Your task to perform on an android device: Search for acer predator on bestbuy, select the first entry, and add it to the cart. Image 0: 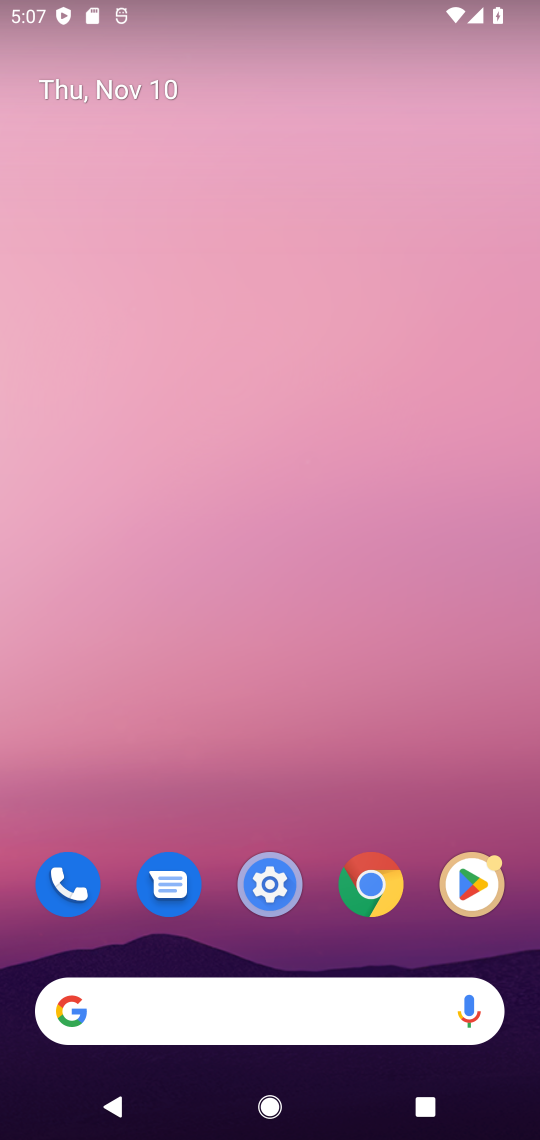
Step 0: drag from (266, 937) to (79, 108)
Your task to perform on an android device: Search for acer predator on bestbuy, select the first entry, and add it to the cart. Image 1: 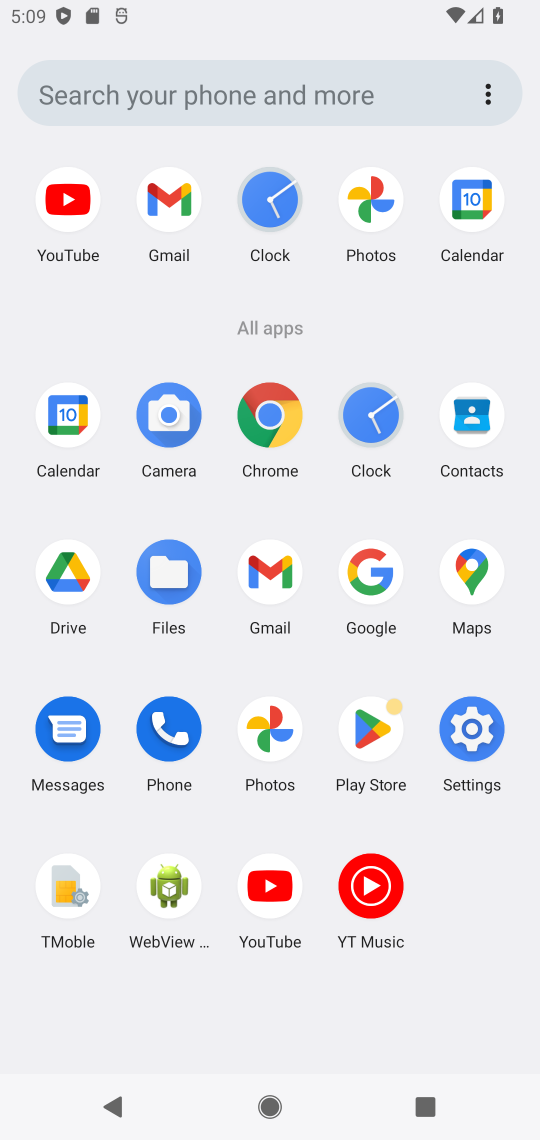
Step 1: click (292, 412)
Your task to perform on an android device: Search for acer predator on bestbuy, select the first entry, and add it to the cart. Image 2: 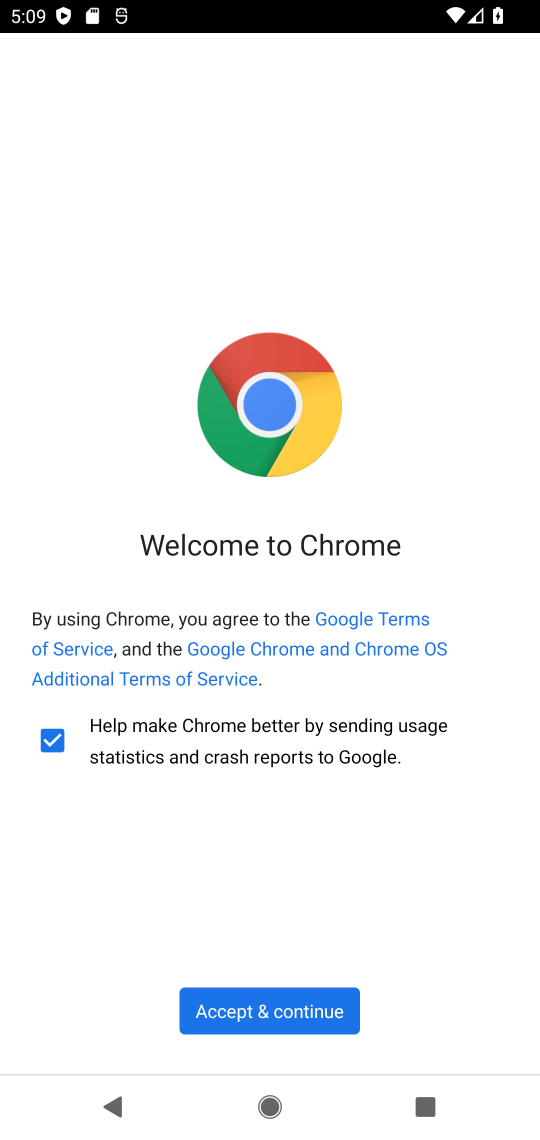
Step 2: click (262, 1003)
Your task to perform on an android device: Search for acer predator on bestbuy, select the first entry, and add it to the cart. Image 3: 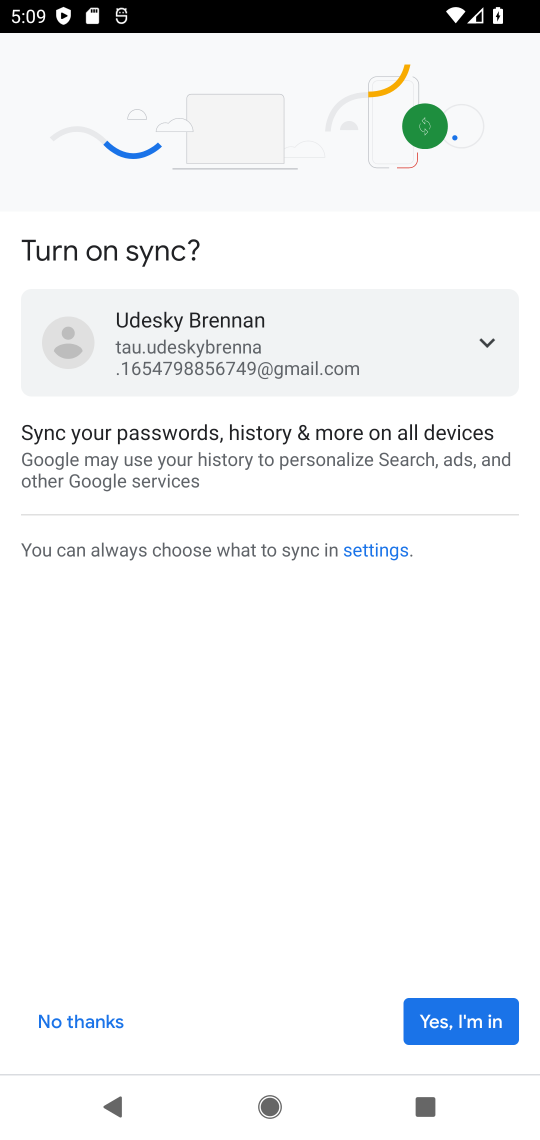
Step 3: click (469, 1029)
Your task to perform on an android device: Search for acer predator on bestbuy, select the first entry, and add it to the cart. Image 4: 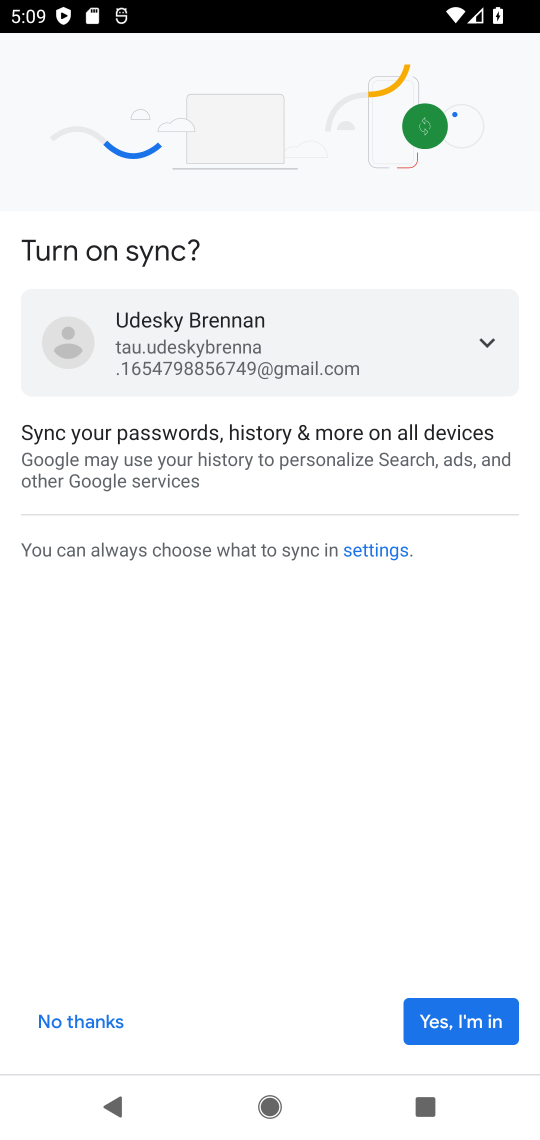
Step 4: click (469, 1027)
Your task to perform on an android device: Search for acer predator on bestbuy, select the first entry, and add it to the cart. Image 5: 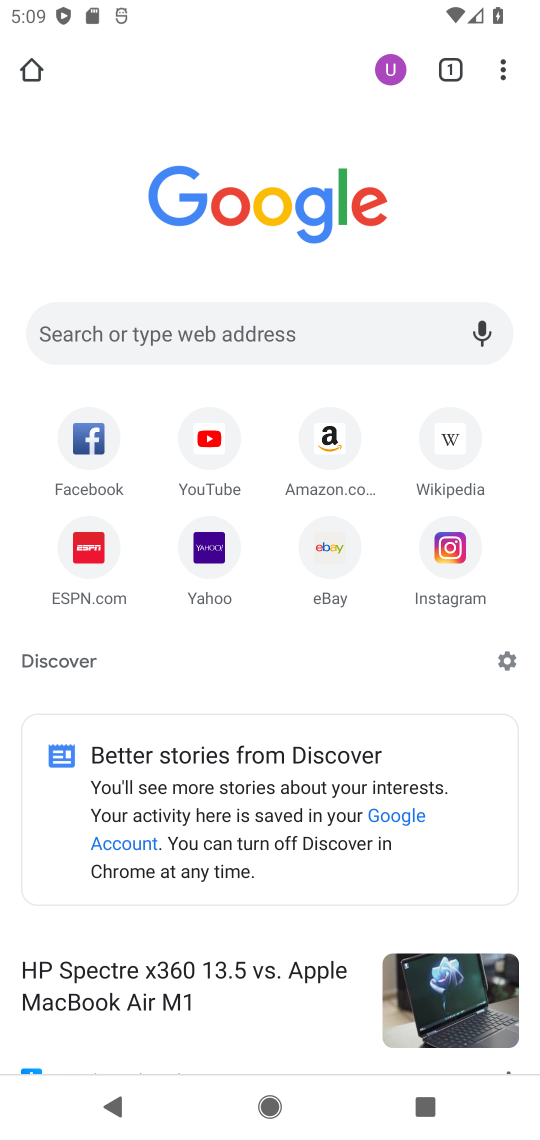
Step 5: click (217, 338)
Your task to perform on an android device: Search for acer predator on bestbuy, select the first entry, and add it to the cart. Image 6: 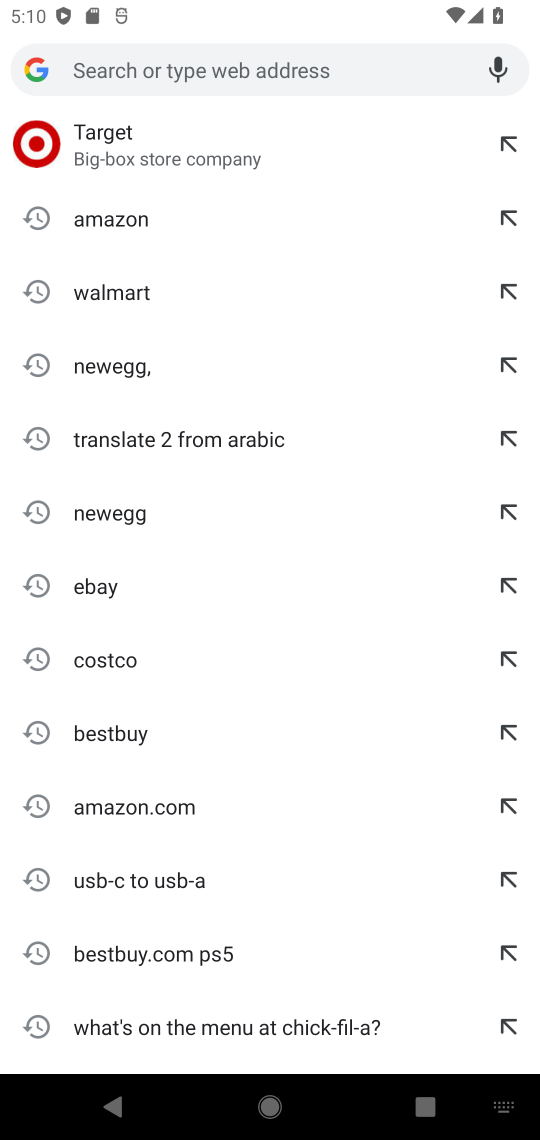
Step 6: type "bestbuy"
Your task to perform on an android device: Search for acer predator on bestbuy, select the first entry, and add it to the cart. Image 7: 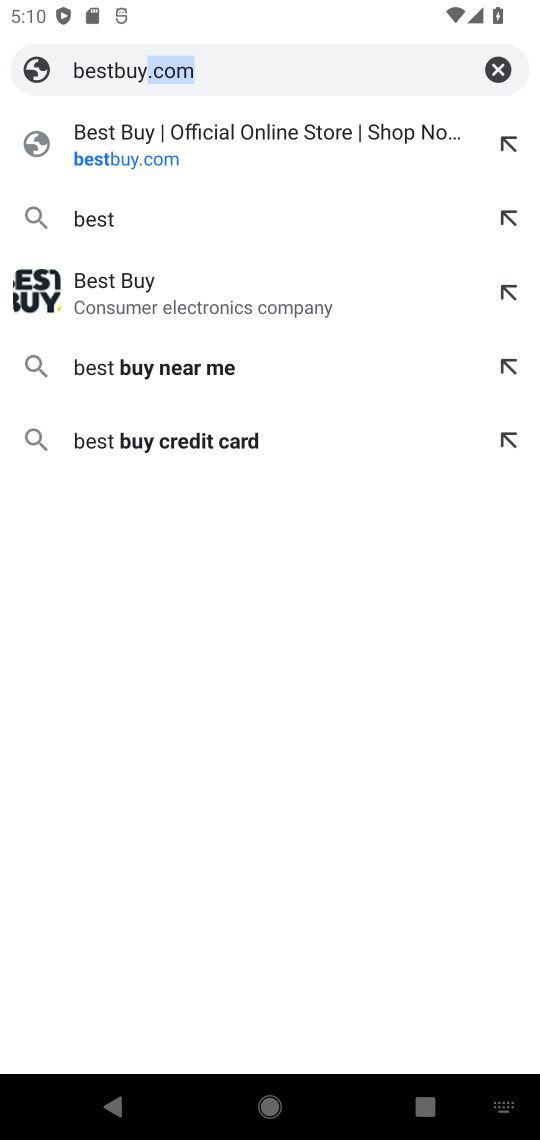
Step 7: press enter
Your task to perform on an android device: Search for acer predator on bestbuy, select the first entry, and add it to the cart. Image 8: 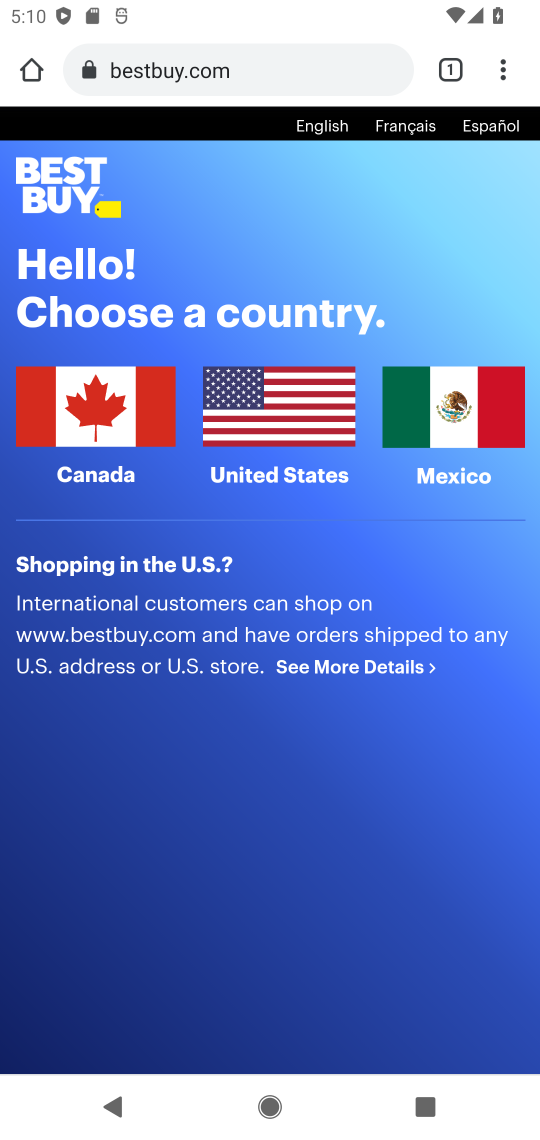
Step 8: click (94, 416)
Your task to perform on an android device: Search for acer predator on bestbuy, select the first entry, and add it to the cart. Image 9: 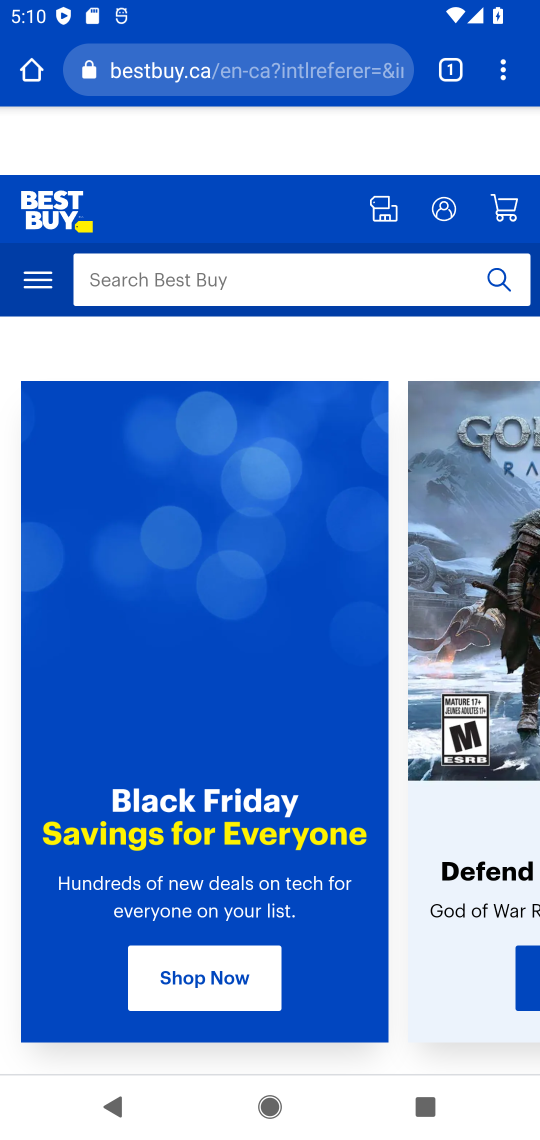
Step 9: click (156, 279)
Your task to perform on an android device: Search for acer predator on bestbuy, select the first entry, and add it to the cart. Image 10: 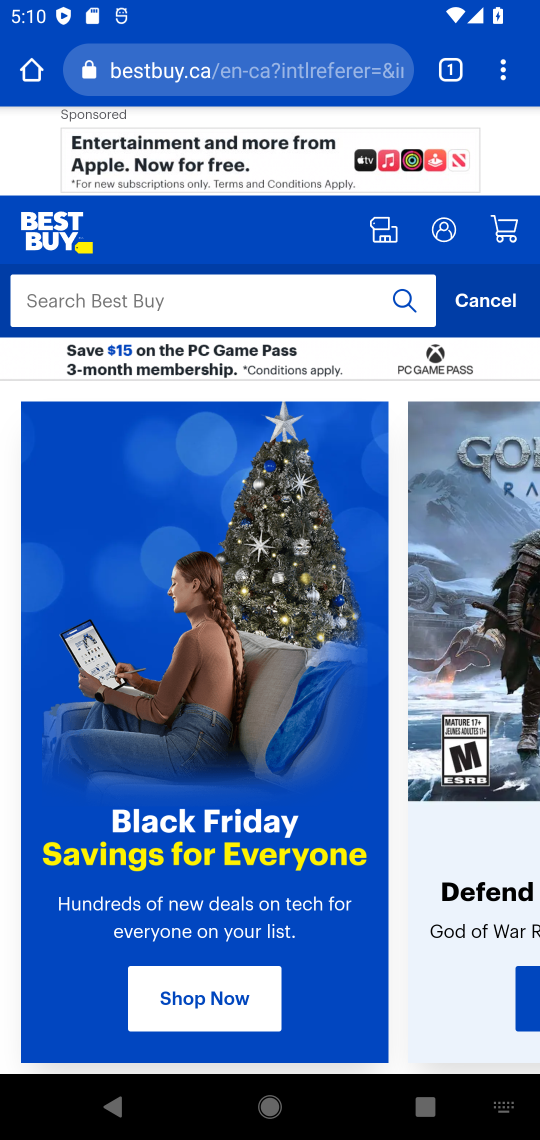
Step 10: type "acer predator"
Your task to perform on an android device: Search for acer predator on bestbuy, select the first entry, and add it to the cart. Image 11: 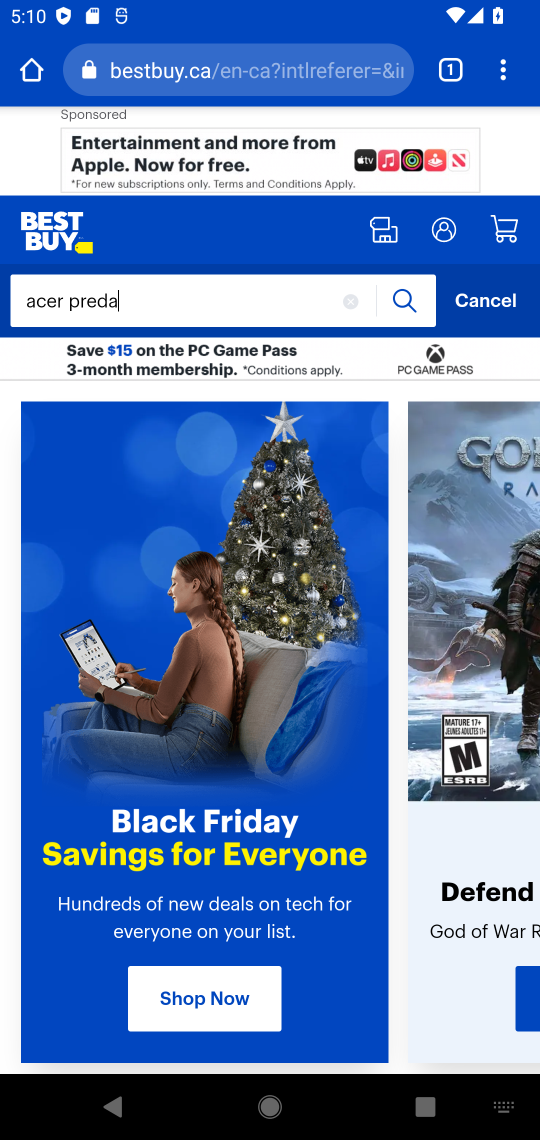
Step 11: press enter
Your task to perform on an android device: Search for acer predator on bestbuy, select the first entry, and add it to the cart. Image 12: 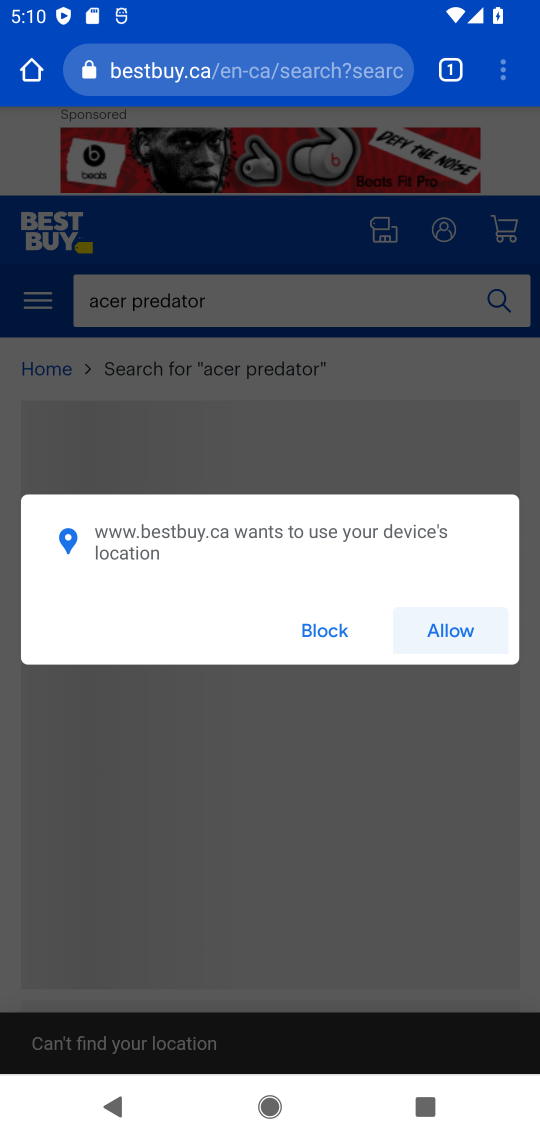
Step 12: click (469, 623)
Your task to perform on an android device: Search for acer predator on bestbuy, select the first entry, and add it to the cart. Image 13: 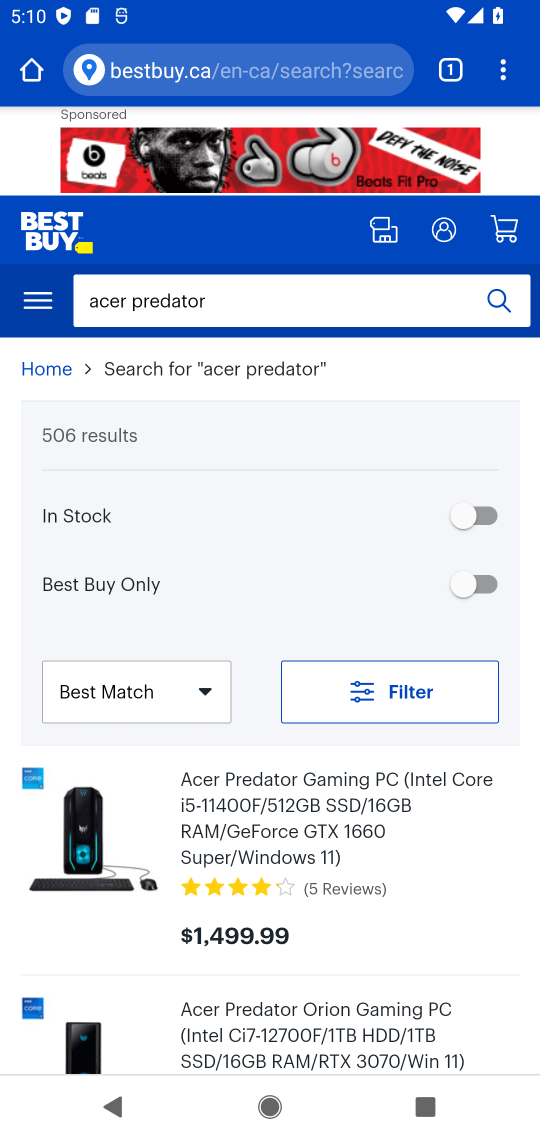
Step 13: drag from (253, 884) to (225, 661)
Your task to perform on an android device: Search for acer predator on bestbuy, select the first entry, and add it to the cart. Image 14: 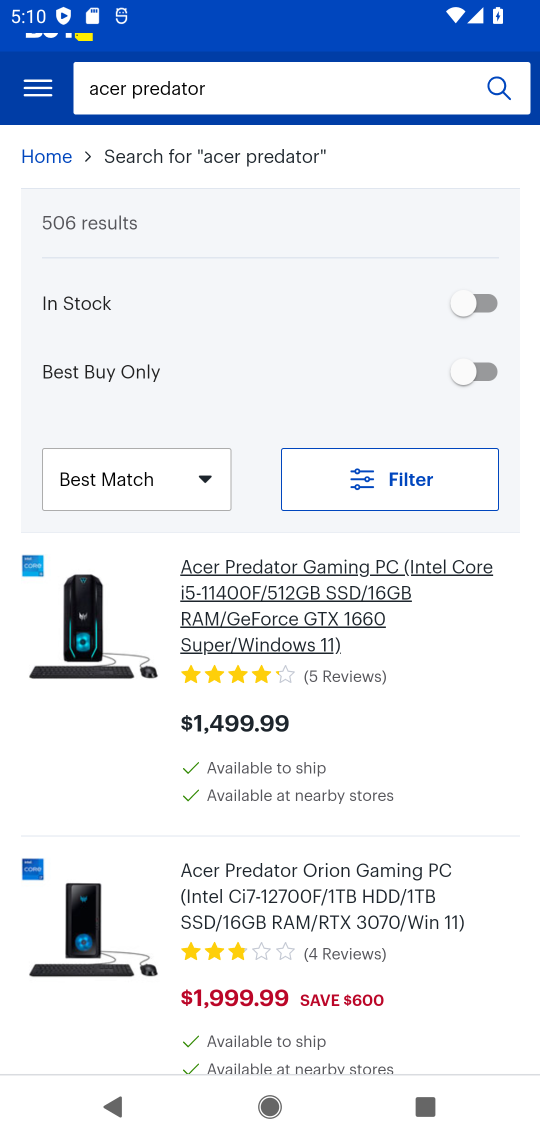
Step 14: click (247, 610)
Your task to perform on an android device: Search for acer predator on bestbuy, select the first entry, and add it to the cart. Image 15: 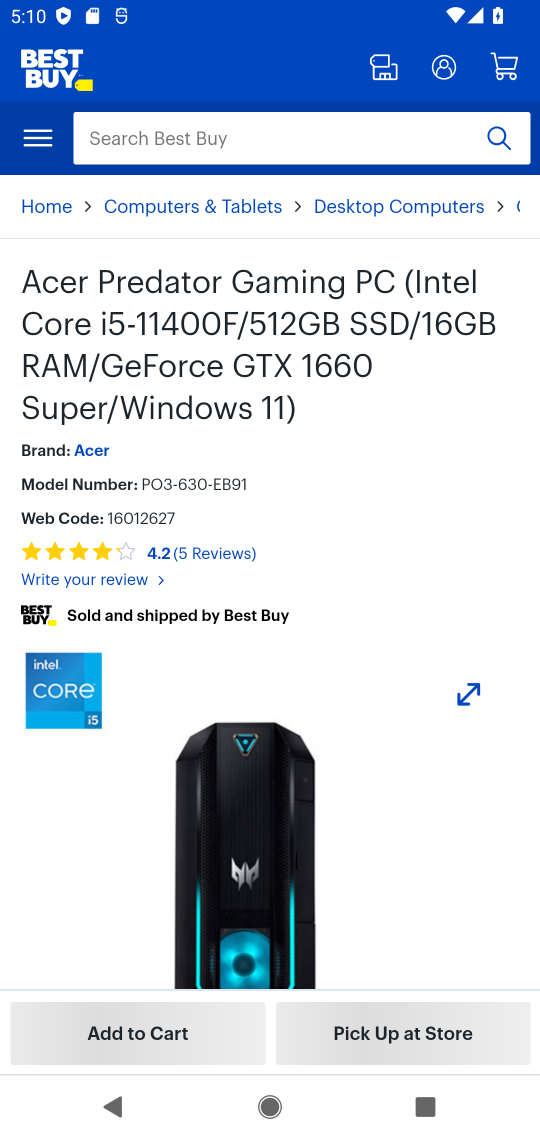
Step 15: drag from (323, 726) to (339, 438)
Your task to perform on an android device: Search for acer predator on bestbuy, select the first entry, and add it to the cart. Image 16: 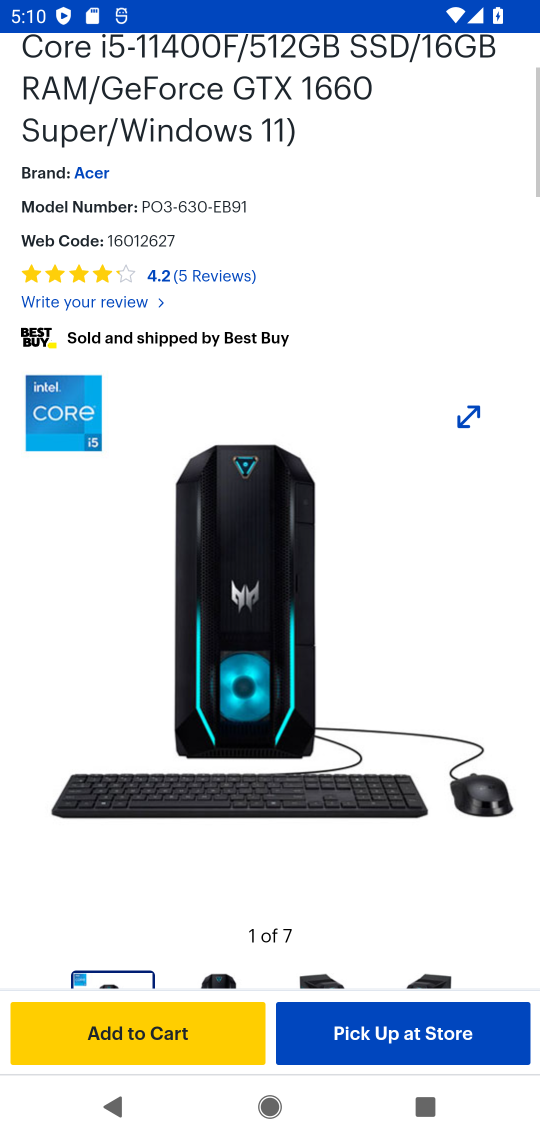
Step 16: drag from (297, 842) to (305, 518)
Your task to perform on an android device: Search for acer predator on bestbuy, select the first entry, and add it to the cart. Image 17: 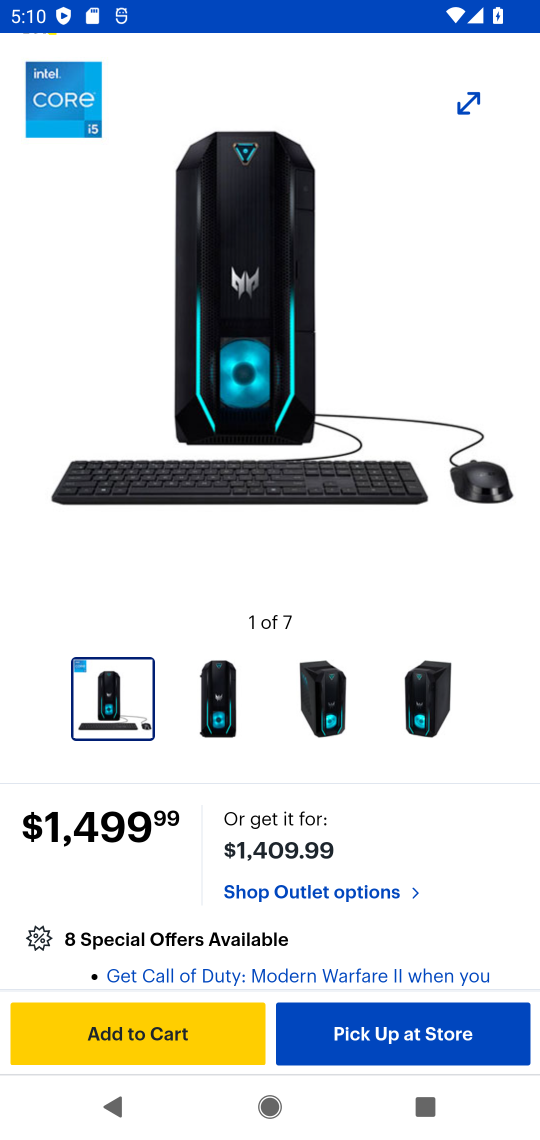
Step 17: click (154, 1030)
Your task to perform on an android device: Search for acer predator on bestbuy, select the first entry, and add it to the cart. Image 18: 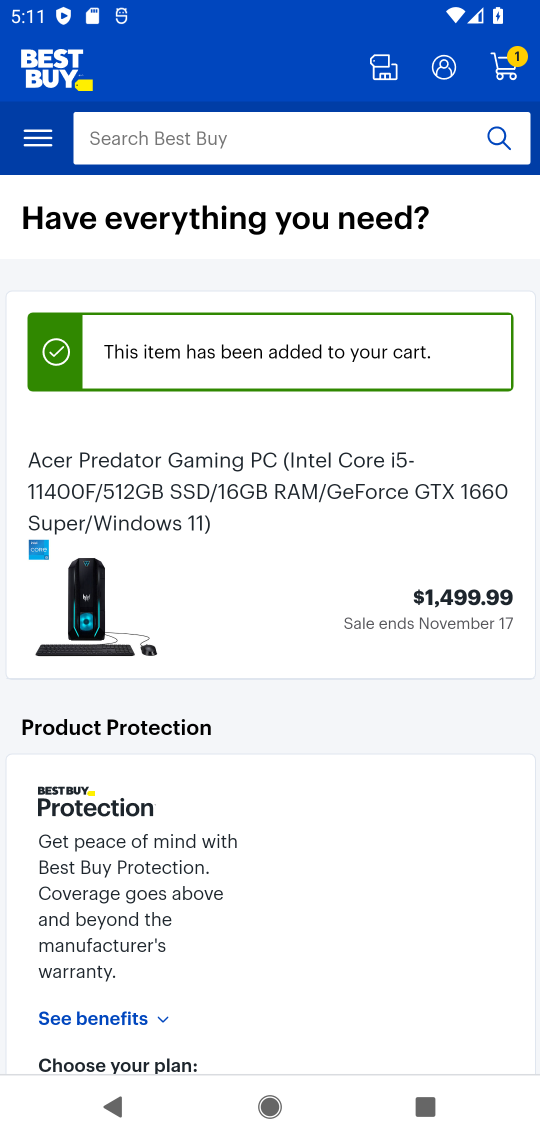
Step 18: task complete